Your task to perform on an android device: check the backup settings in the google photos Image 0: 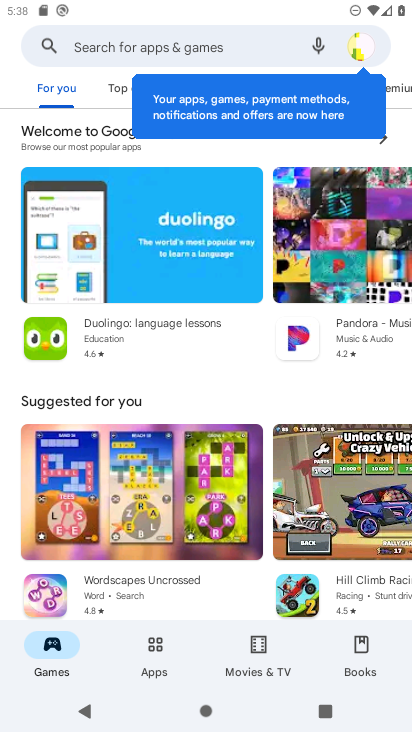
Step 0: press home button
Your task to perform on an android device: check the backup settings in the google photos Image 1: 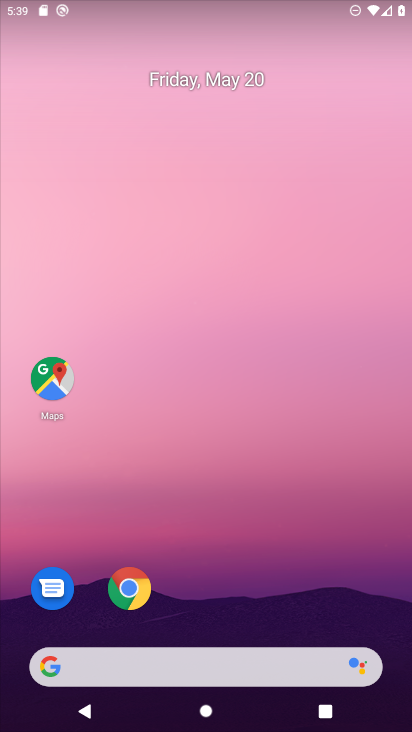
Step 1: drag from (187, 594) to (225, 181)
Your task to perform on an android device: check the backup settings in the google photos Image 2: 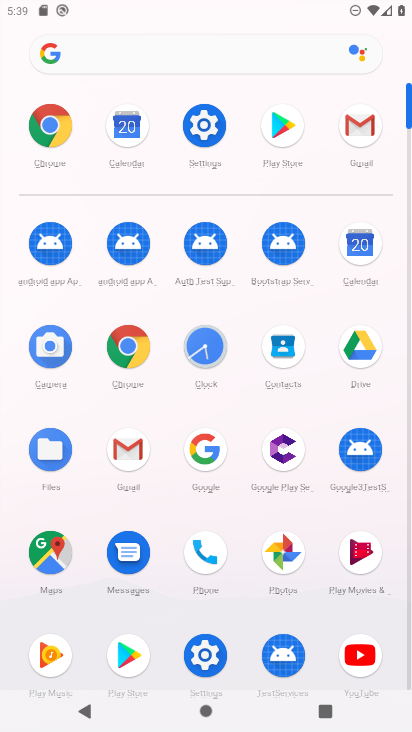
Step 2: click (293, 544)
Your task to perform on an android device: check the backup settings in the google photos Image 3: 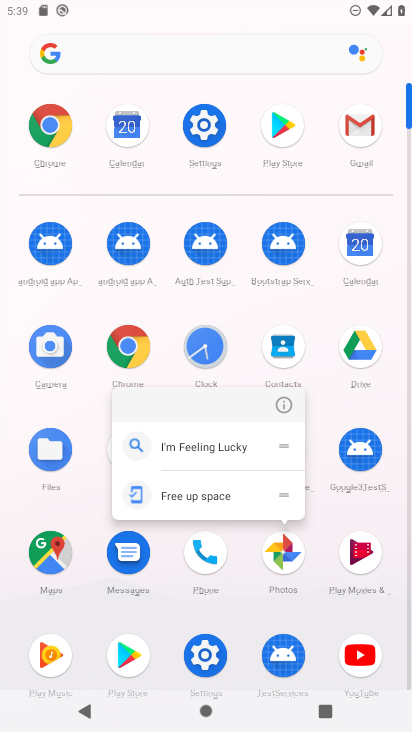
Step 3: click (289, 557)
Your task to perform on an android device: check the backup settings in the google photos Image 4: 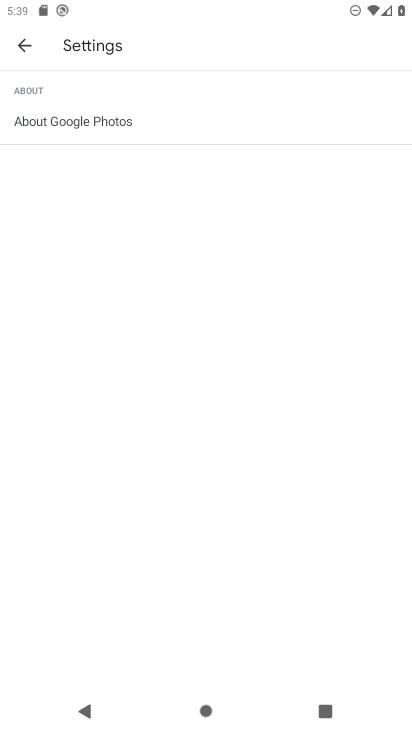
Step 4: press home button
Your task to perform on an android device: check the backup settings in the google photos Image 5: 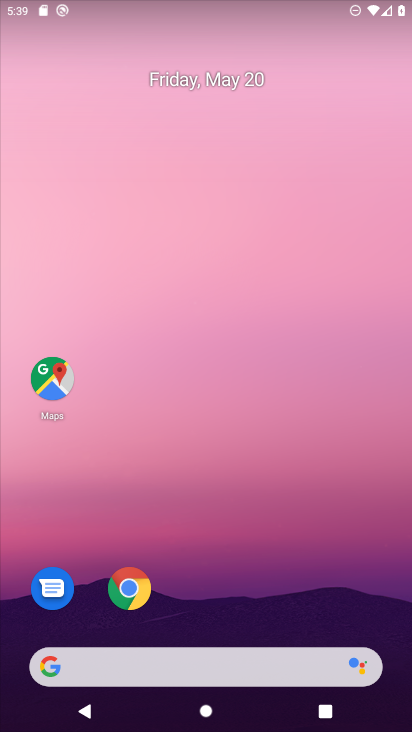
Step 5: drag from (221, 620) to (267, 87)
Your task to perform on an android device: check the backup settings in the google photos Image 6: 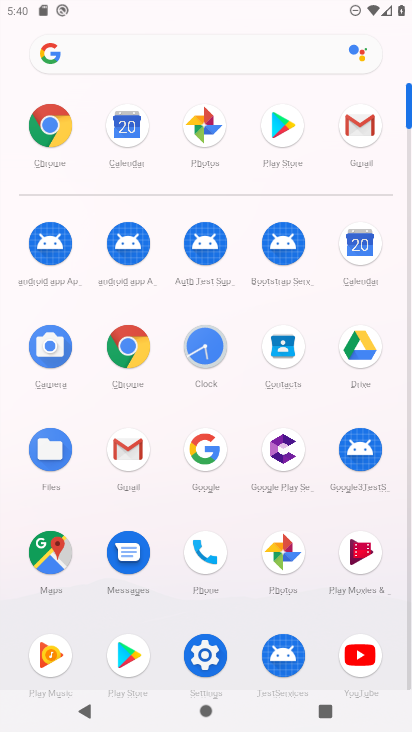
Step 6: click (280, 579)
Your task to perform on an android device: check the backup settings in the google photos Image 7: 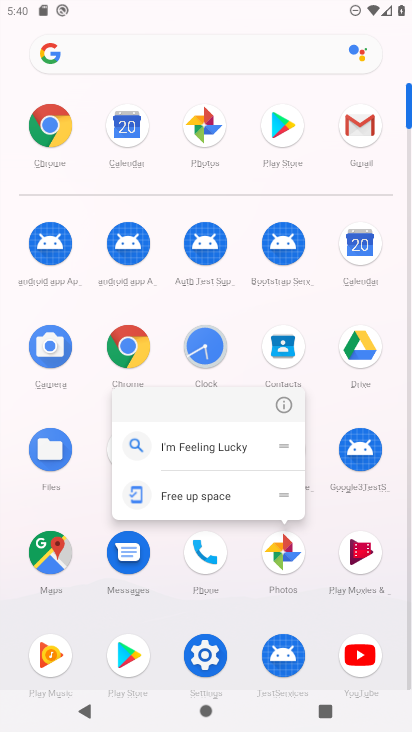
Step 7: click (276, 575)
Your task to perform on an android device: check the backup settings in the google photos Image 8: 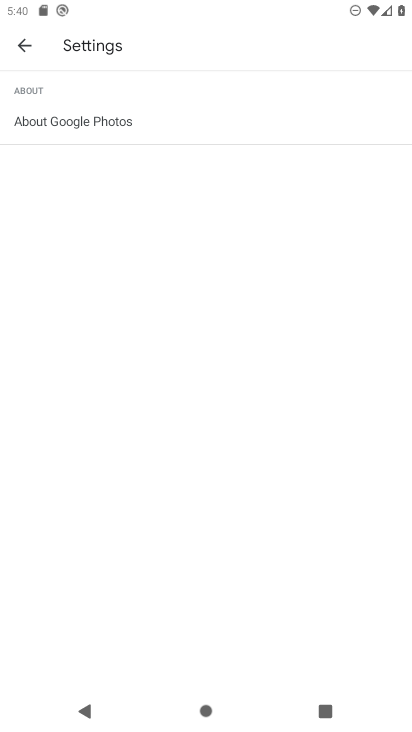
Step 8: click (22, 47)
Your task to perform on an android device: check the backup settings in the google photos Image 9: 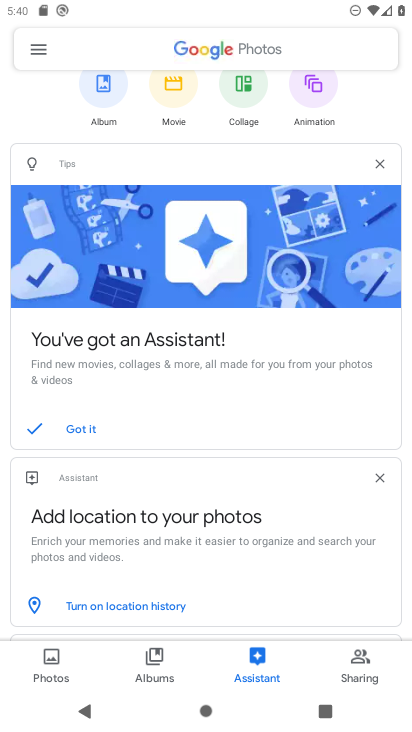
Step 9: click (32, 52)
Your task to perform on an android device: check the backup settings in the google photos Image 10: 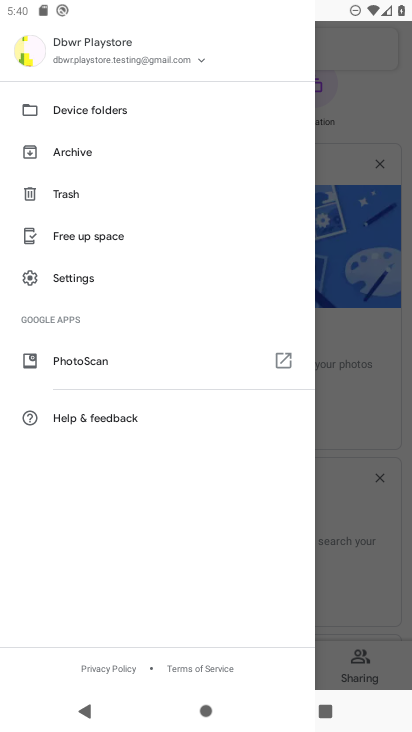
Step 10: click (74, 283)
Your task to perform on an android device: check the backup settings in the google photos Image 11: 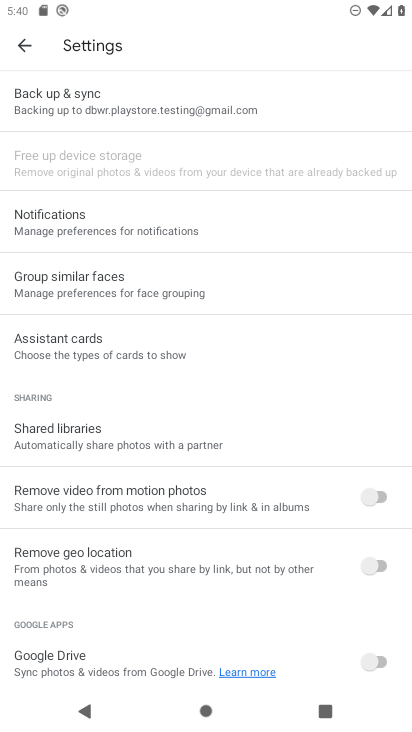
Step 11: click (70, 105)
Your task to perform on an android device: check the backup settings in the google photos Image 12: 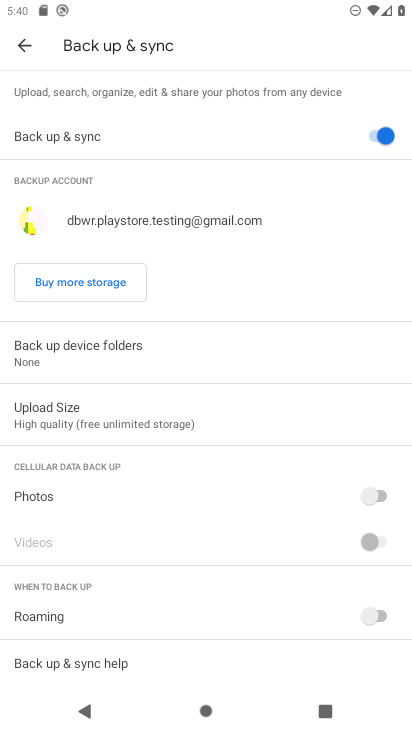
Step 12: task complete